Your task to perform on an android device: Add razer huntsman to the cart on bestbuy.com Image 0: 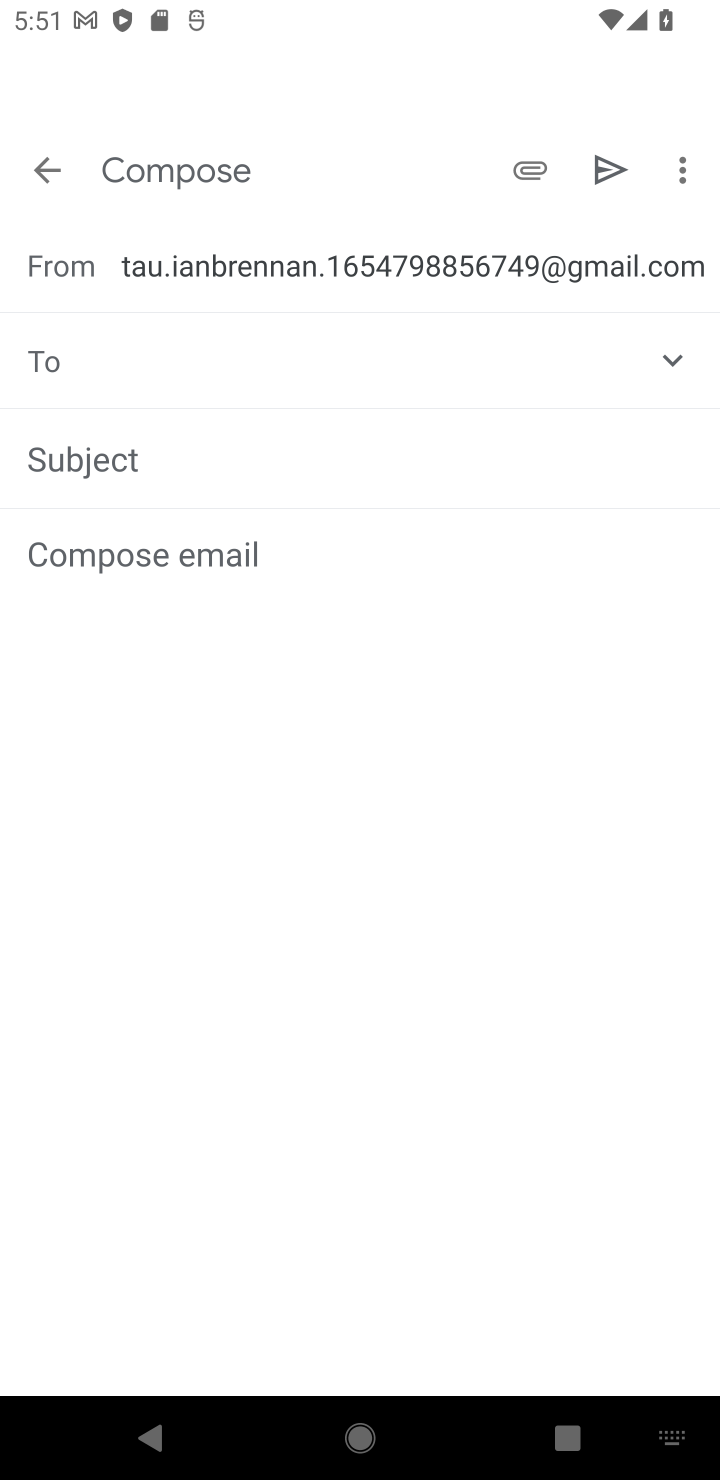
Step 0: press home button
Your task to perform on an android device: Add razer huntsman to the cart on bestbuy.com Image 1: 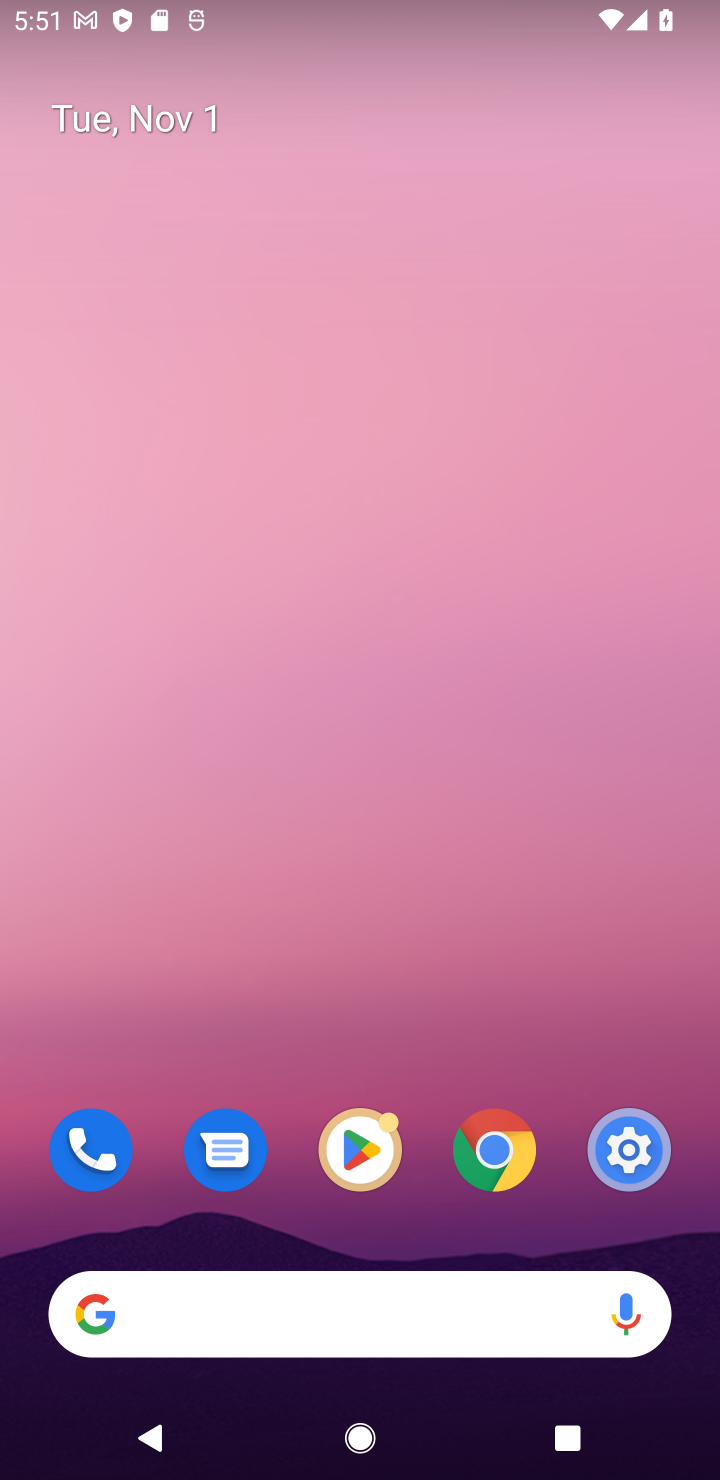
Step 1: click (497, 1156)
Your task to perform on an android device: Add razer huntsman to the cart on bestbuy.com Image 2: 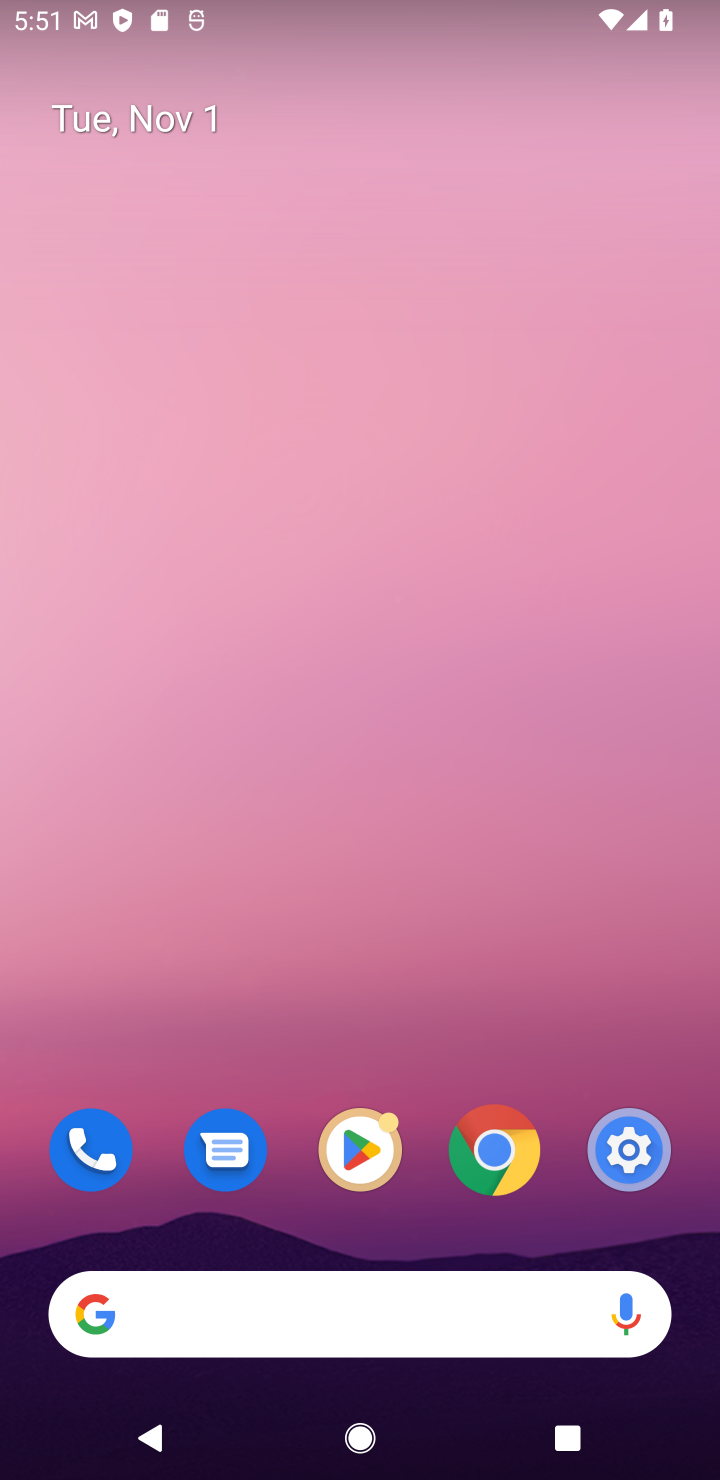
Step 2: click (506, 1140)
Your task to perform on an android device: Add razer huntsman to the cart on bestbuy.com Image 3: 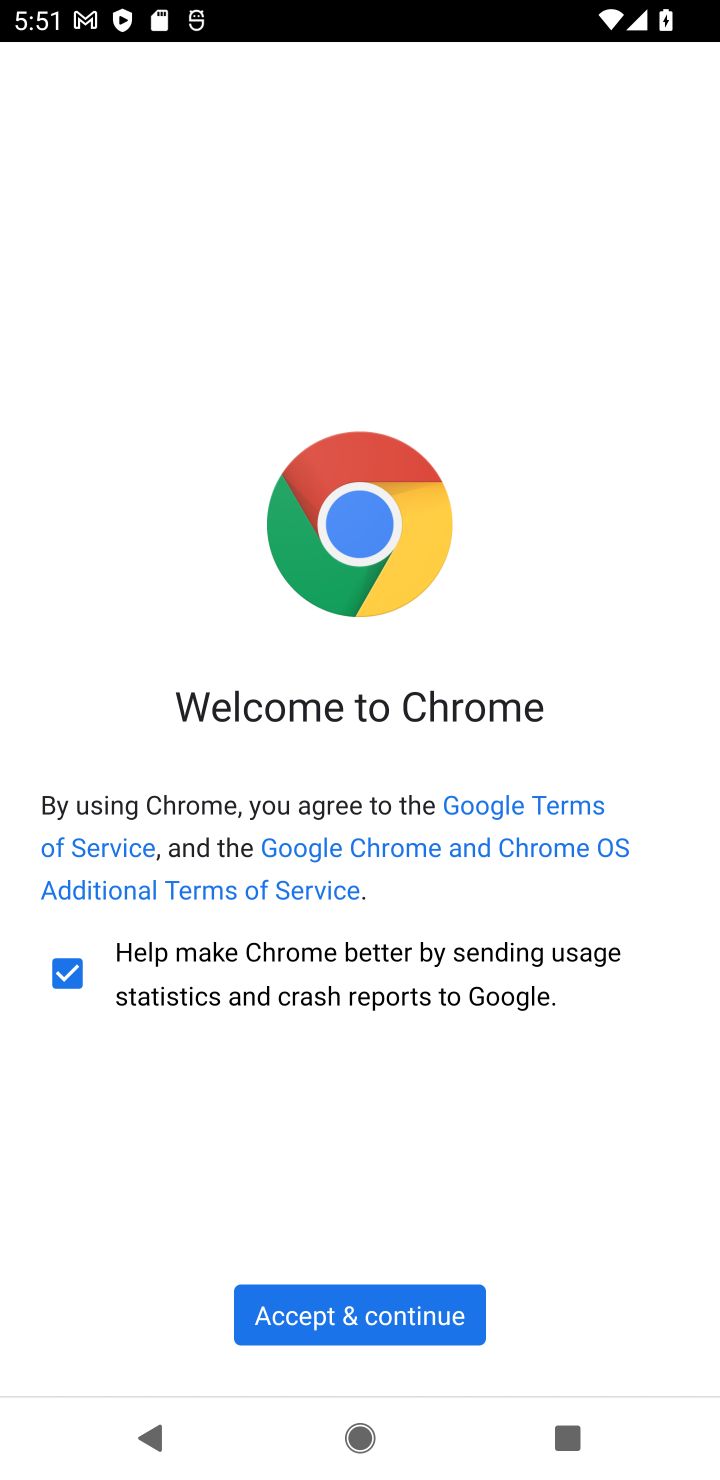
Step 3: click (369, 1332)
Your task to perform on an android device: Add razer huntsman to the cart on bestbuy.com Image 4: 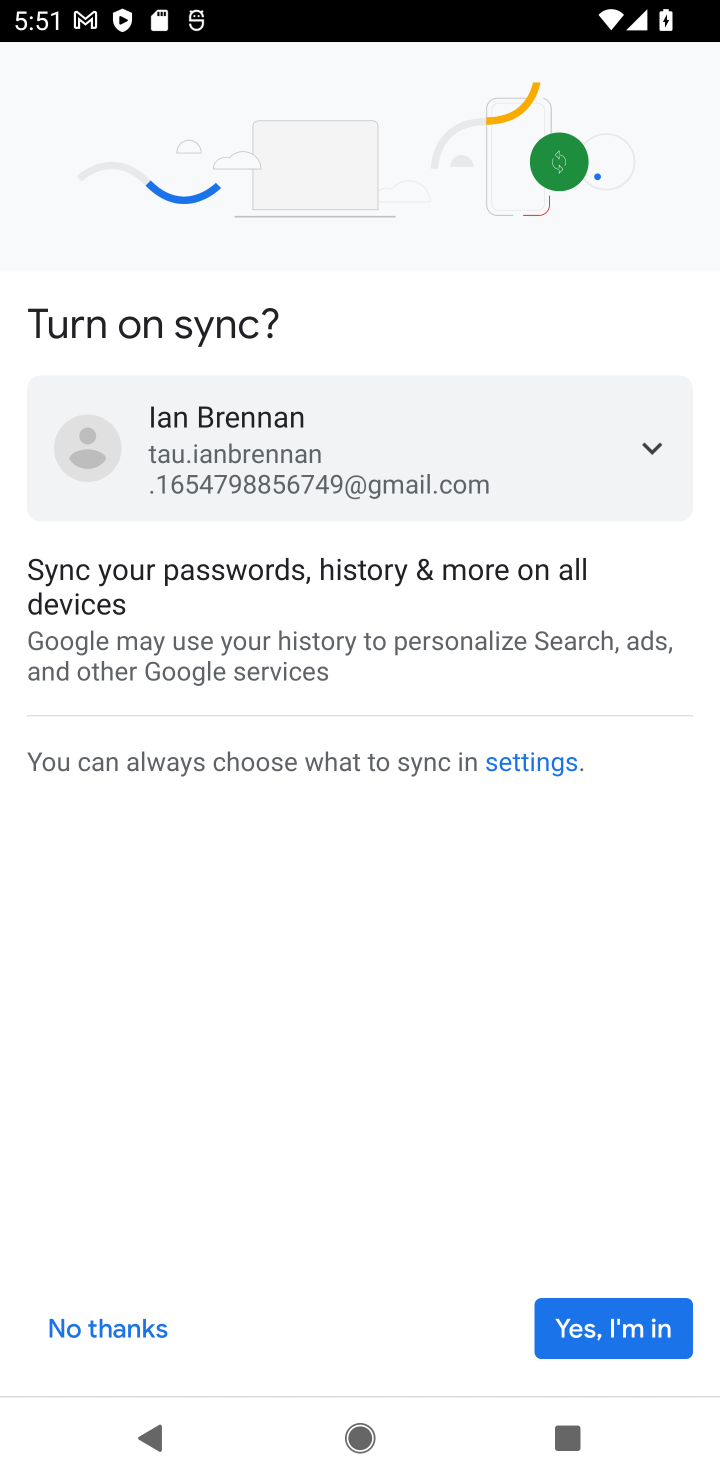
Step 4: click (393, 1326)
Your task to perform on an android device: Add razer huntsman to the cart on bestbuy.com Image 5: 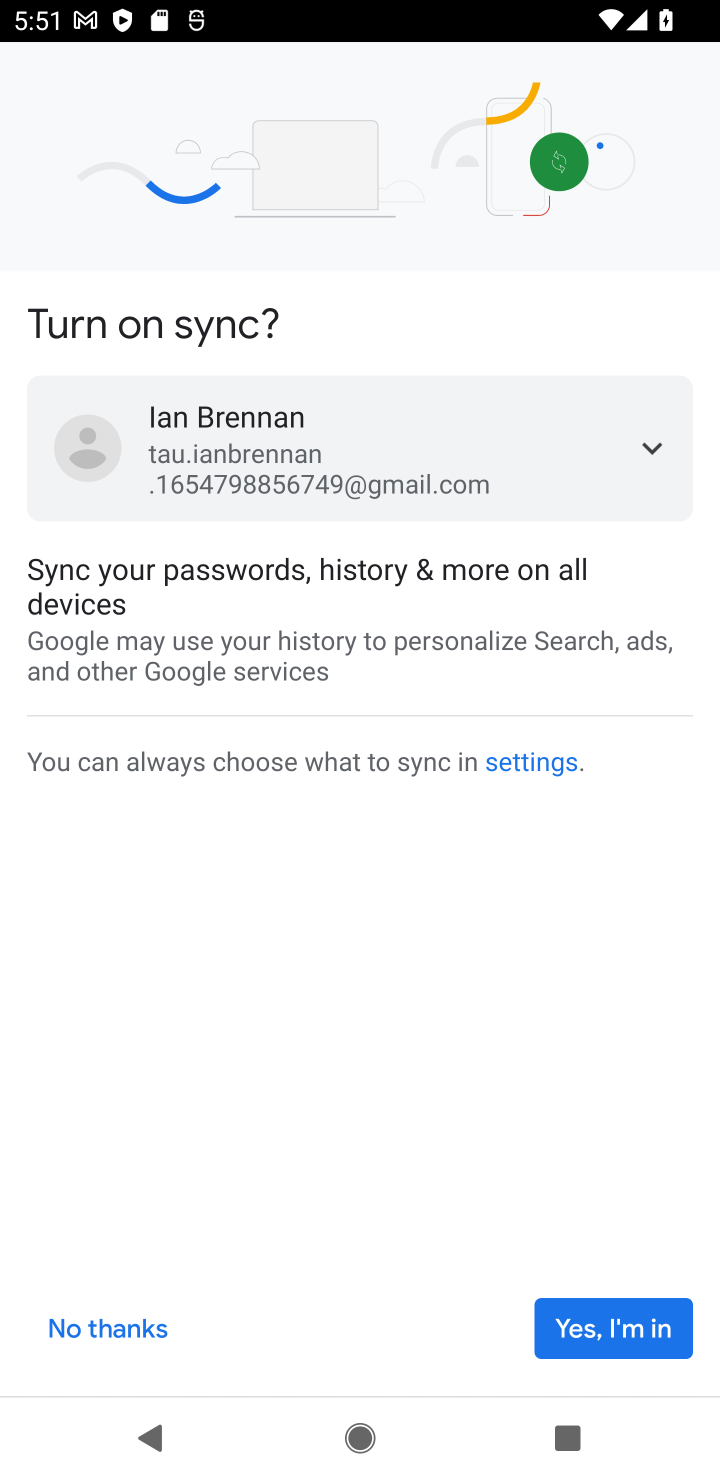
Step 5: click (585, 1317)
Your task to perform on an android device: Add razer huntsman to the cart on bestbuy.com Image 6: 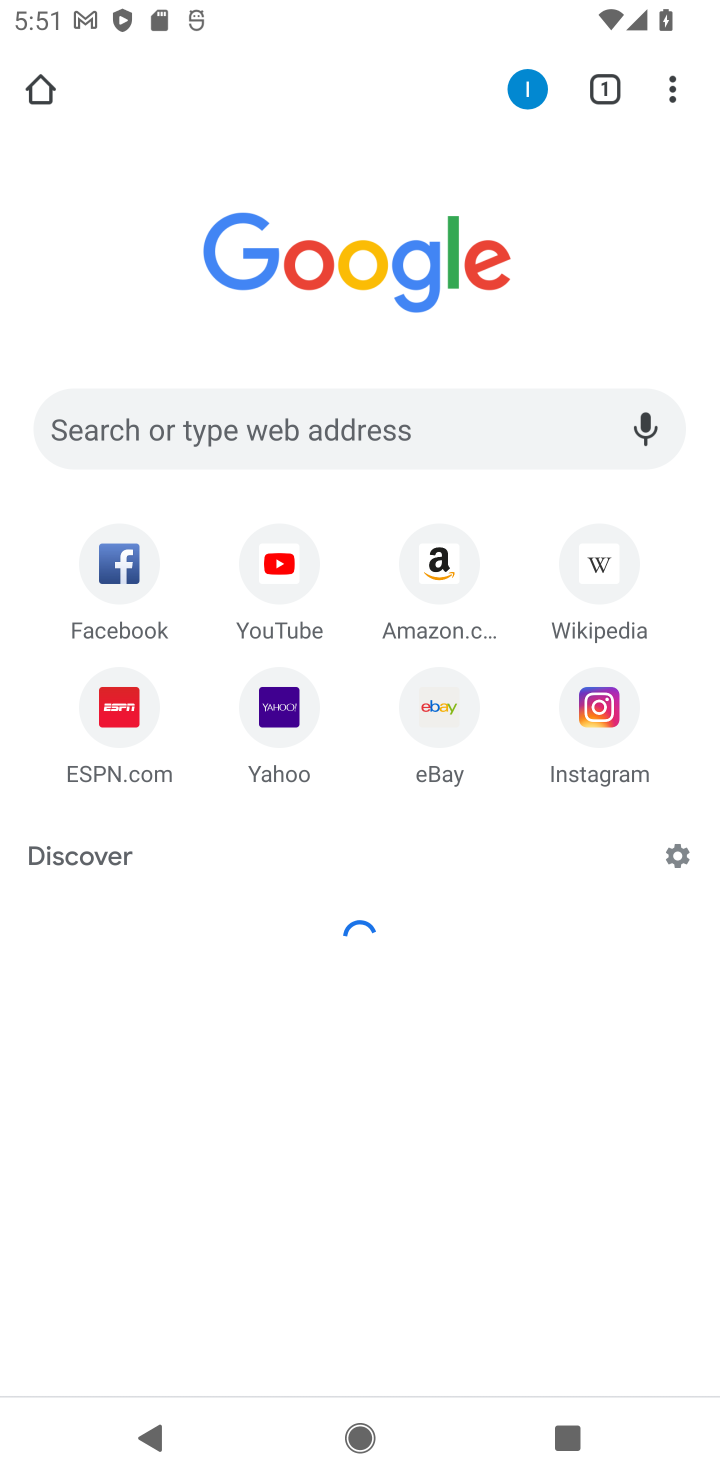
Step 6: click (591, 1326)
Your task to perform on an android device: Add razer huntsman to the cart on bestbuy.com Image 7: 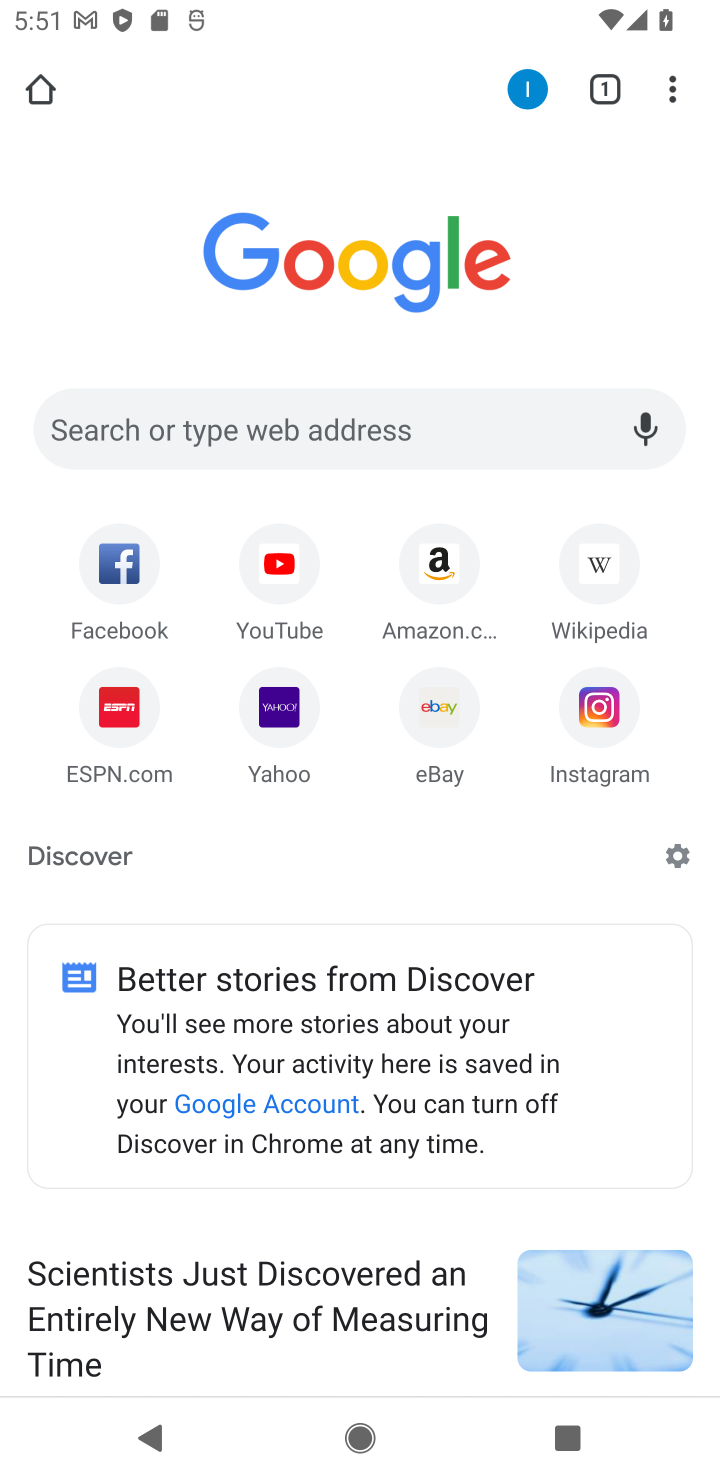
Step 7: click (416, 432)
Your task to perform on an android device: Add razer huntsman to the cart on bestbuy.com Image 8: 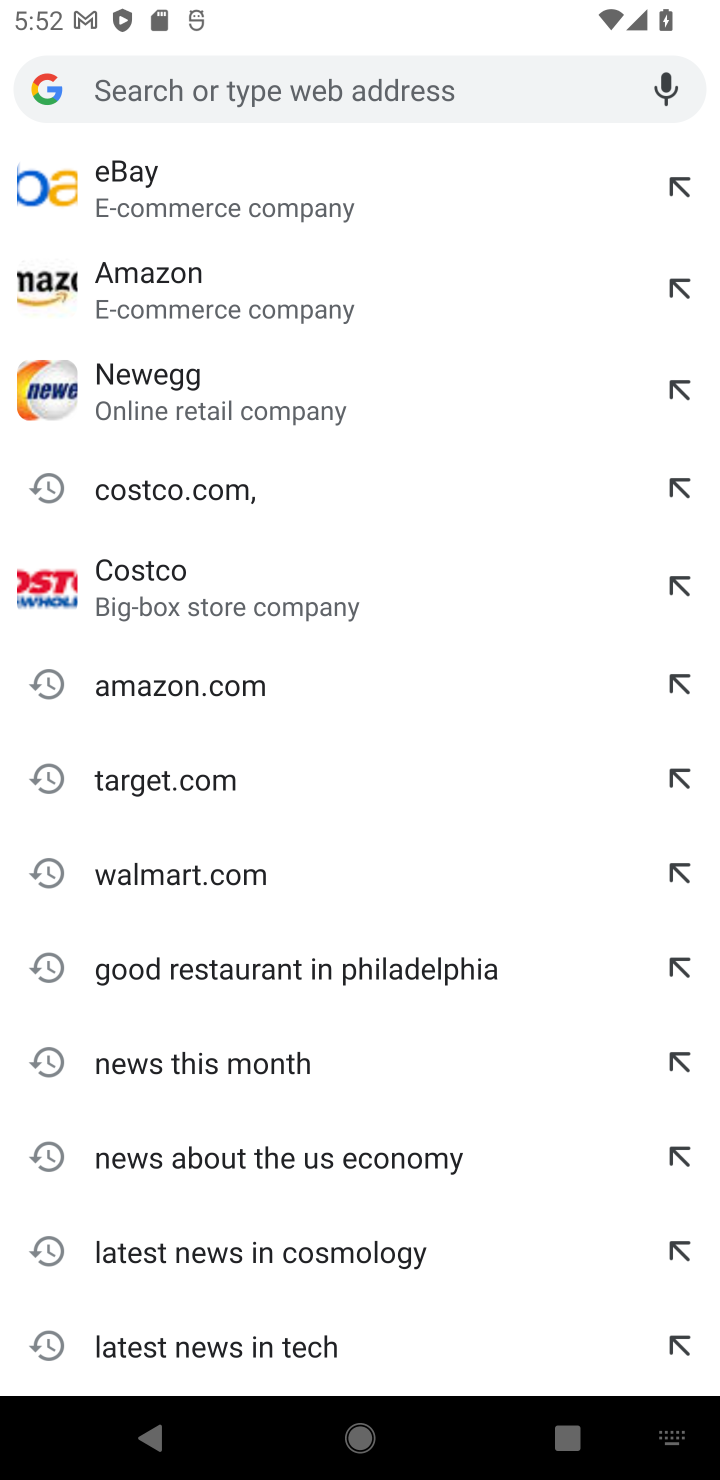
Step 8: type "bestbuy"
Your task to perform on an android device: Add razer huntsman to the cart on bestbuy.com Image 9: 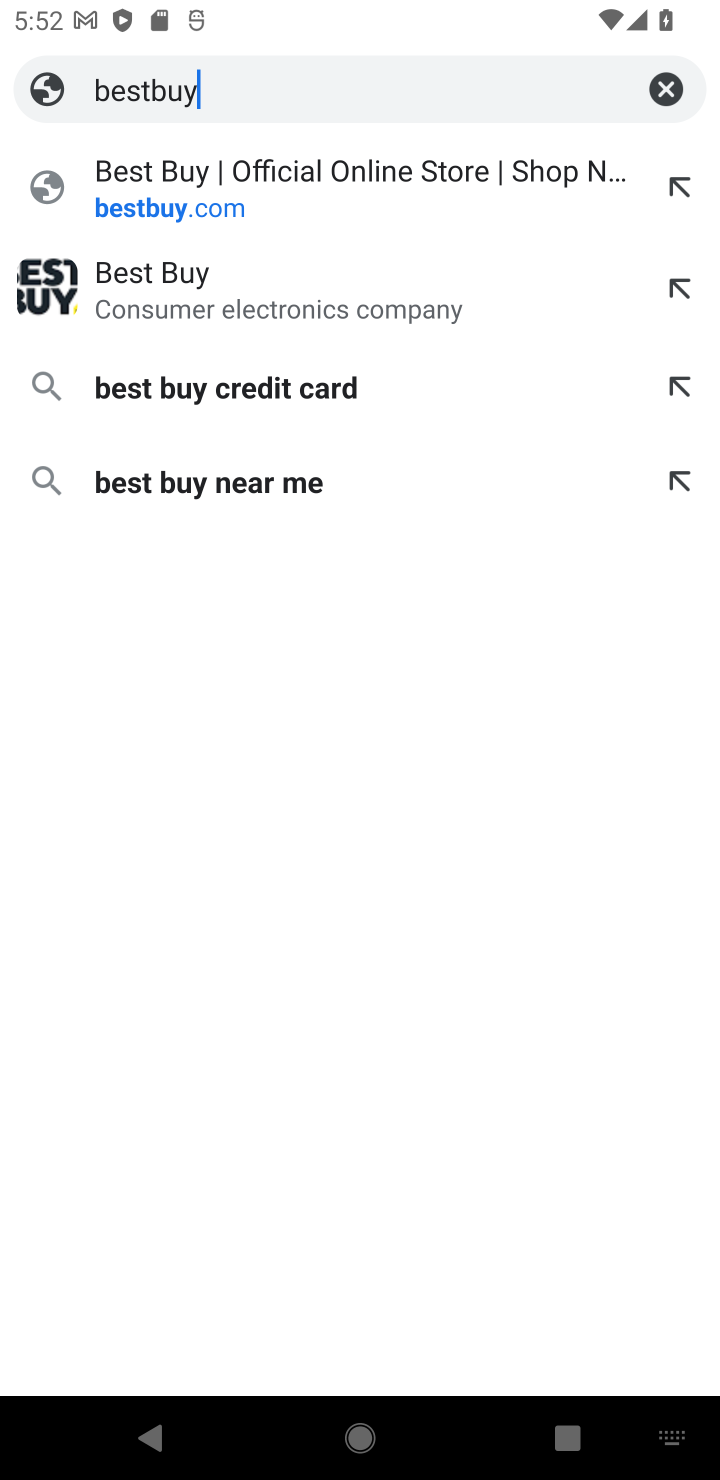
Step 9: click (290, 168)
Your task to perform on an android device: Add razer huntsman to the cart on bestbuy.com Image 10: 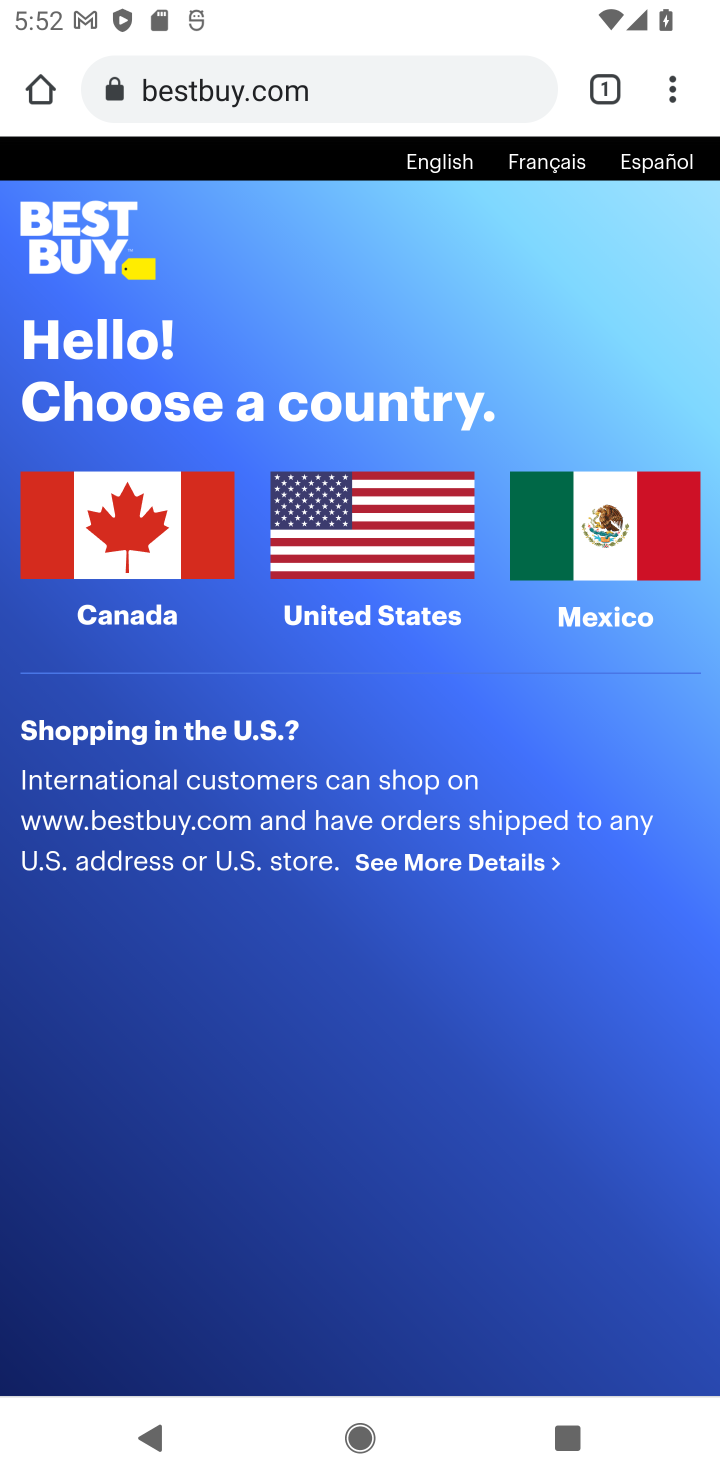
Step 10: click (307, 462)
Your task to perform on an android device: Add razer huntsman to the cart on bestbuy.com Image 11: 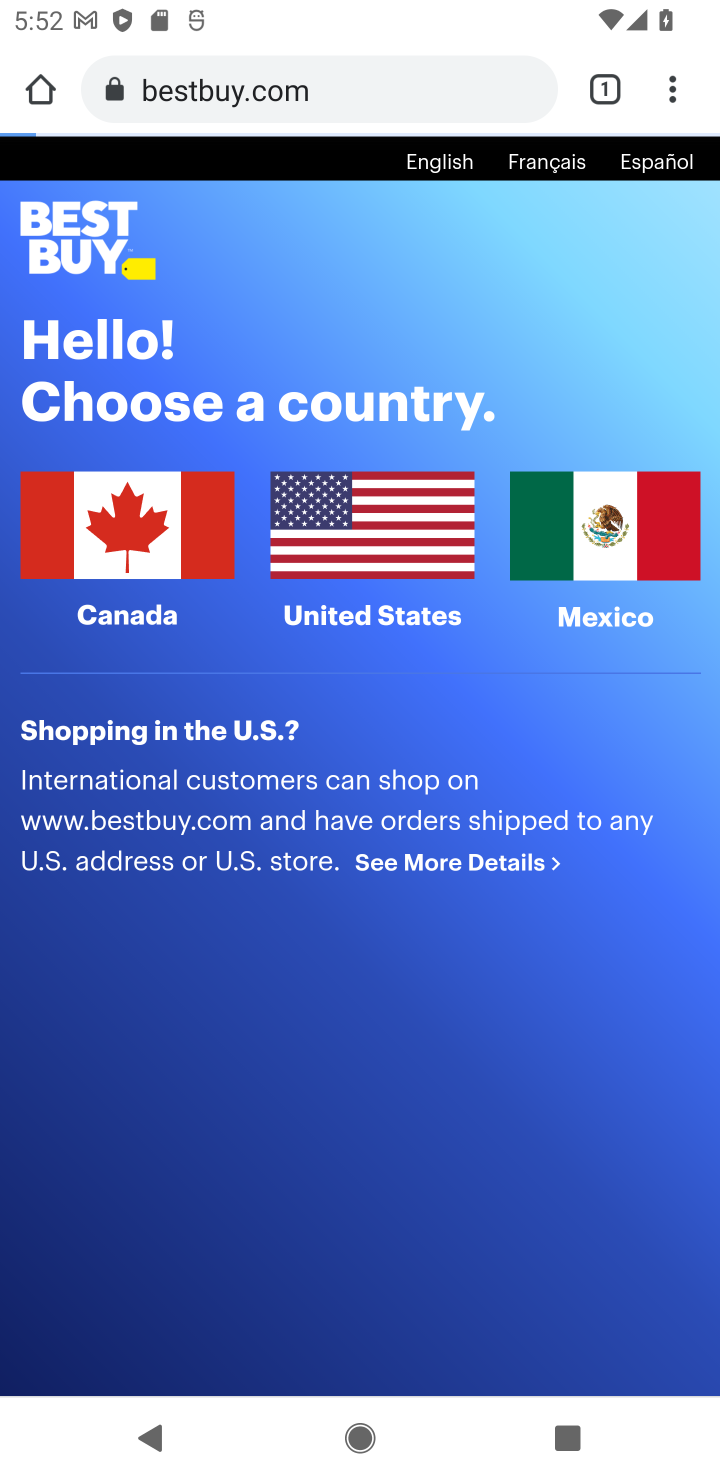
Step 11: click (336, 525)
Your task to perform on an android device: Add razer huntsman to the cart on bestbuy.com Image 12: 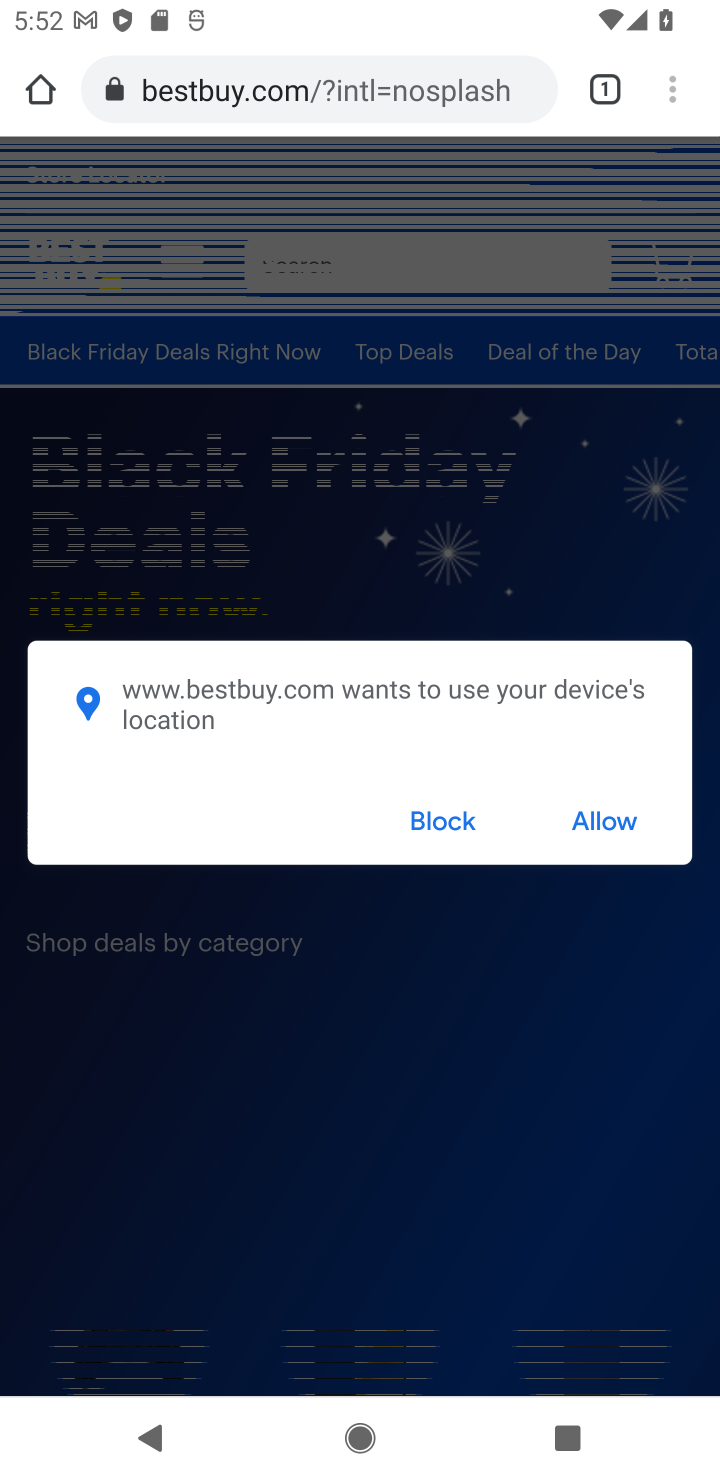
Step 12: click (611, 819)
Your task to perform on an android device: Add razer huntsman to the cart on bestbuy.com Image 13: 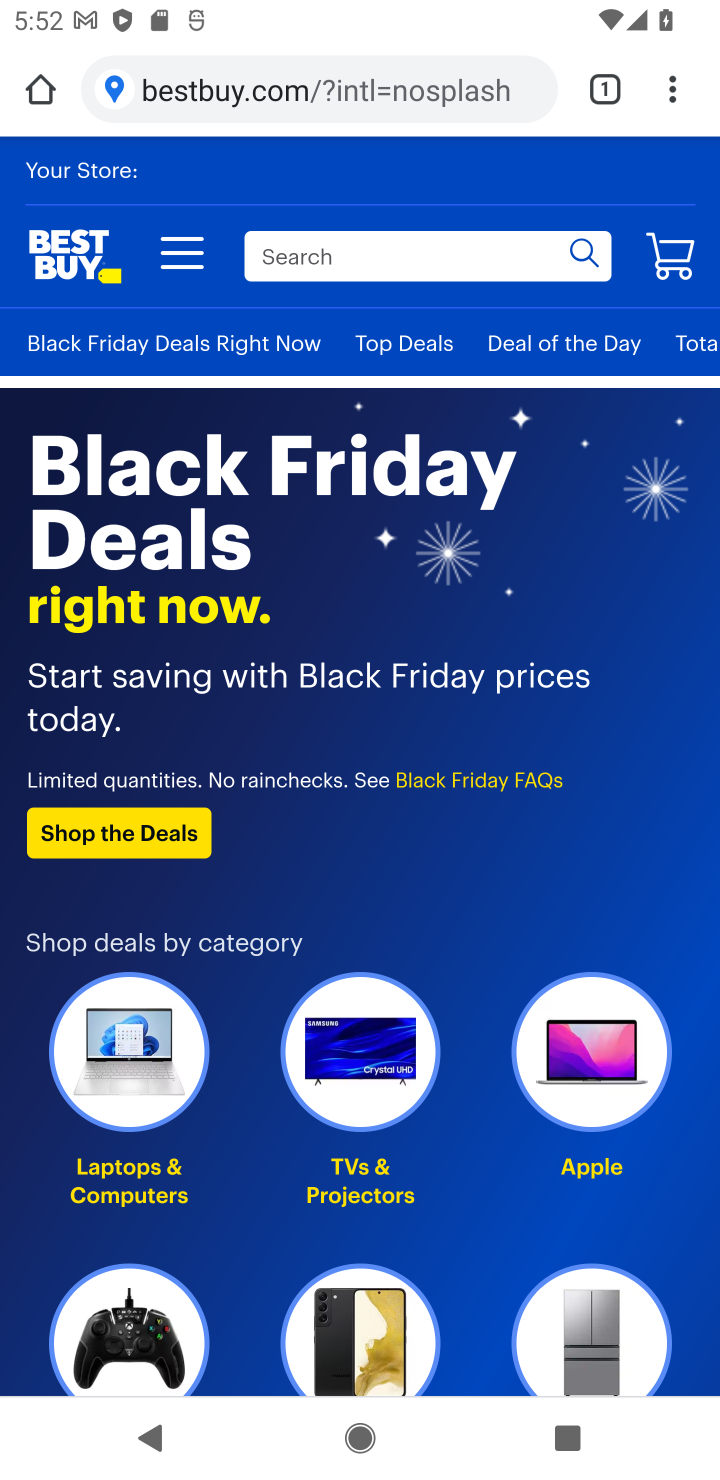
Step 13: click (439, 255)
Your task to perform on an android device: Add razer huntsman to the cart on bestbuy.com Image 14: 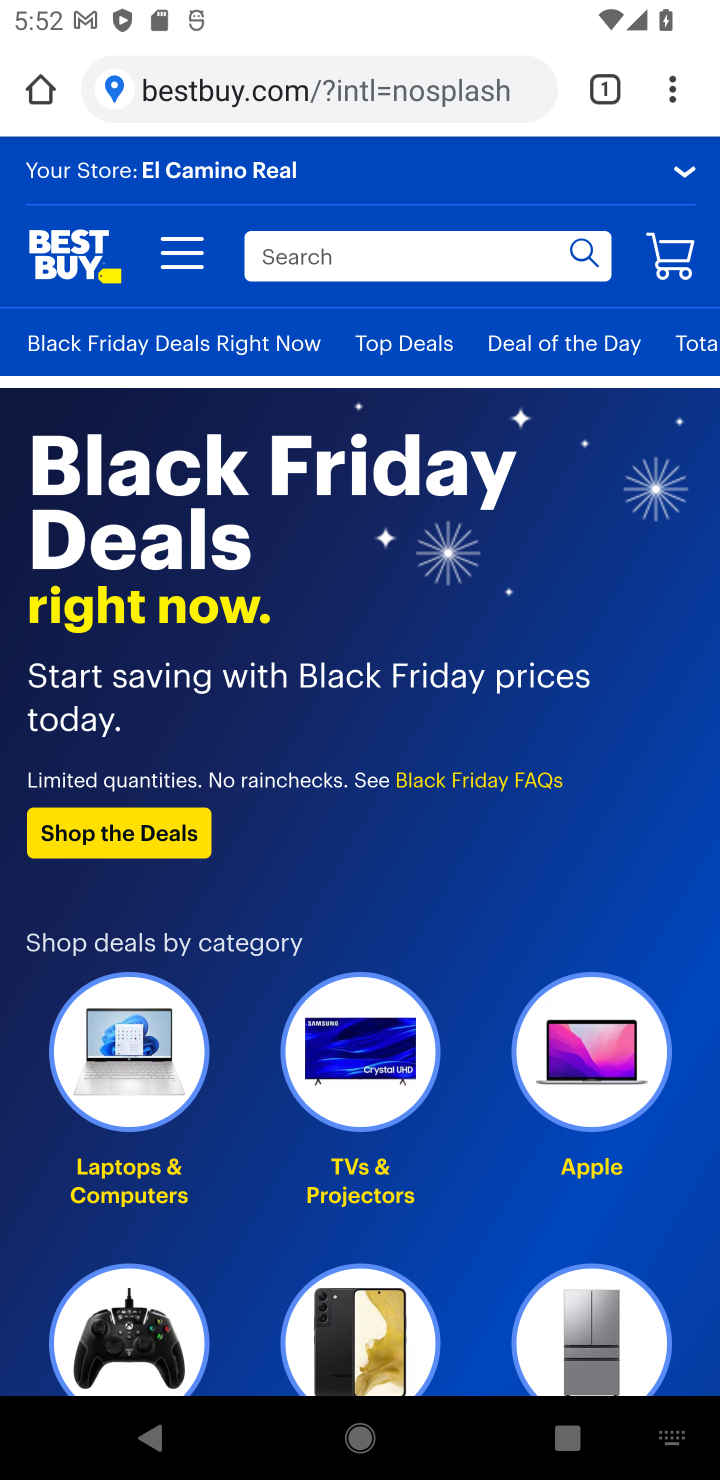
Step 14: type "razer huntsman"
Your task to perform on an android device: Add razer huntsman to the cart on bestbuy.com Image 15: 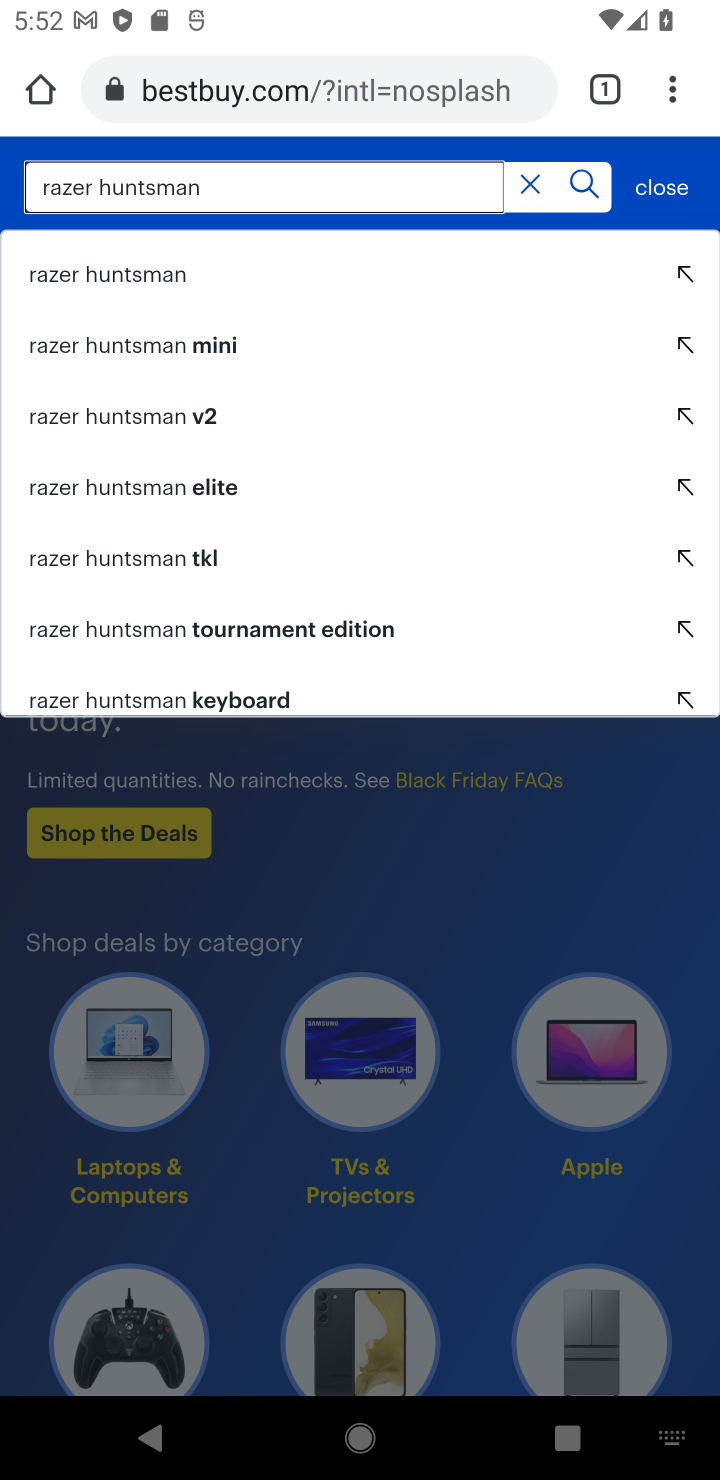
Step 15: click (118, 272)
Your task to perform on an android device: Add razer huntsman to the cart on bestbuy.com Image 16: 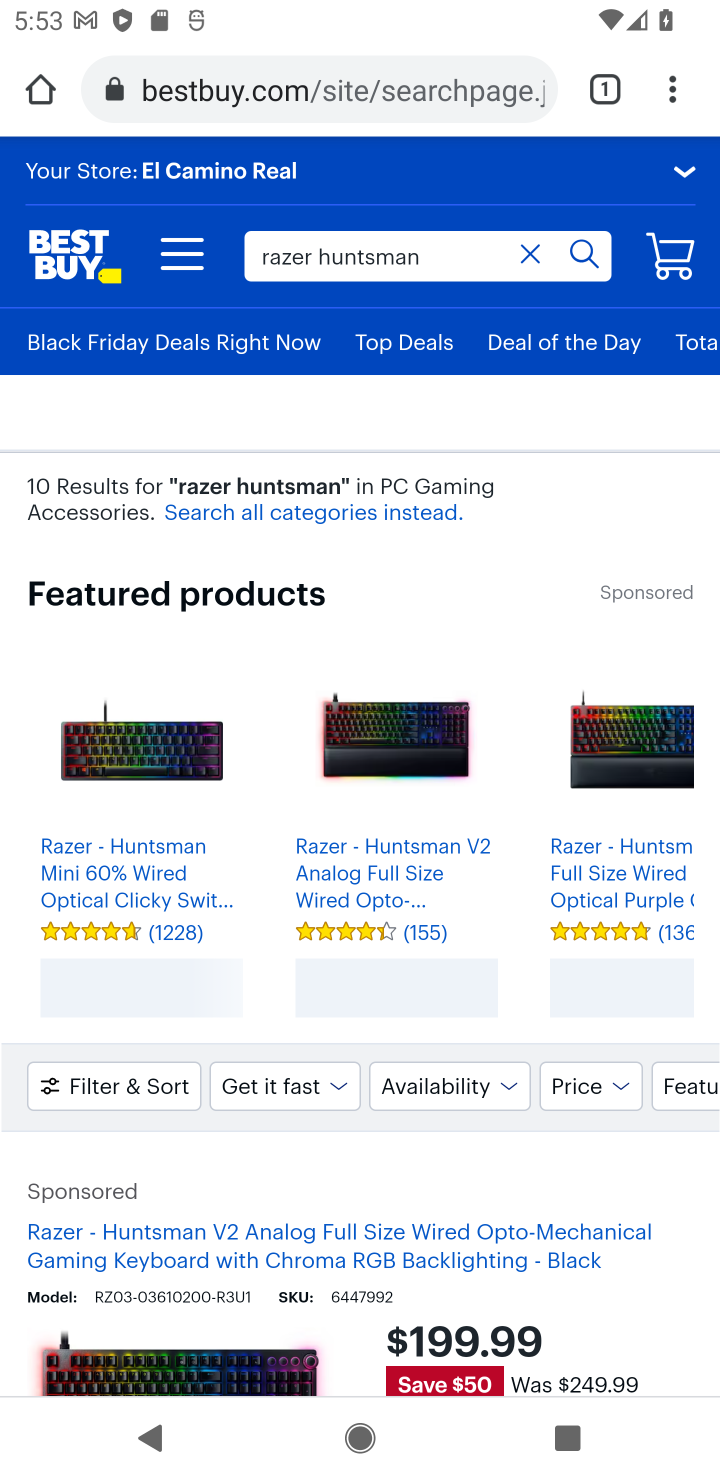
Step 16: click (261, 1268)
Your task to perform on an android device: Add razer huntsman to the cart on bestbuy.com Image 17: 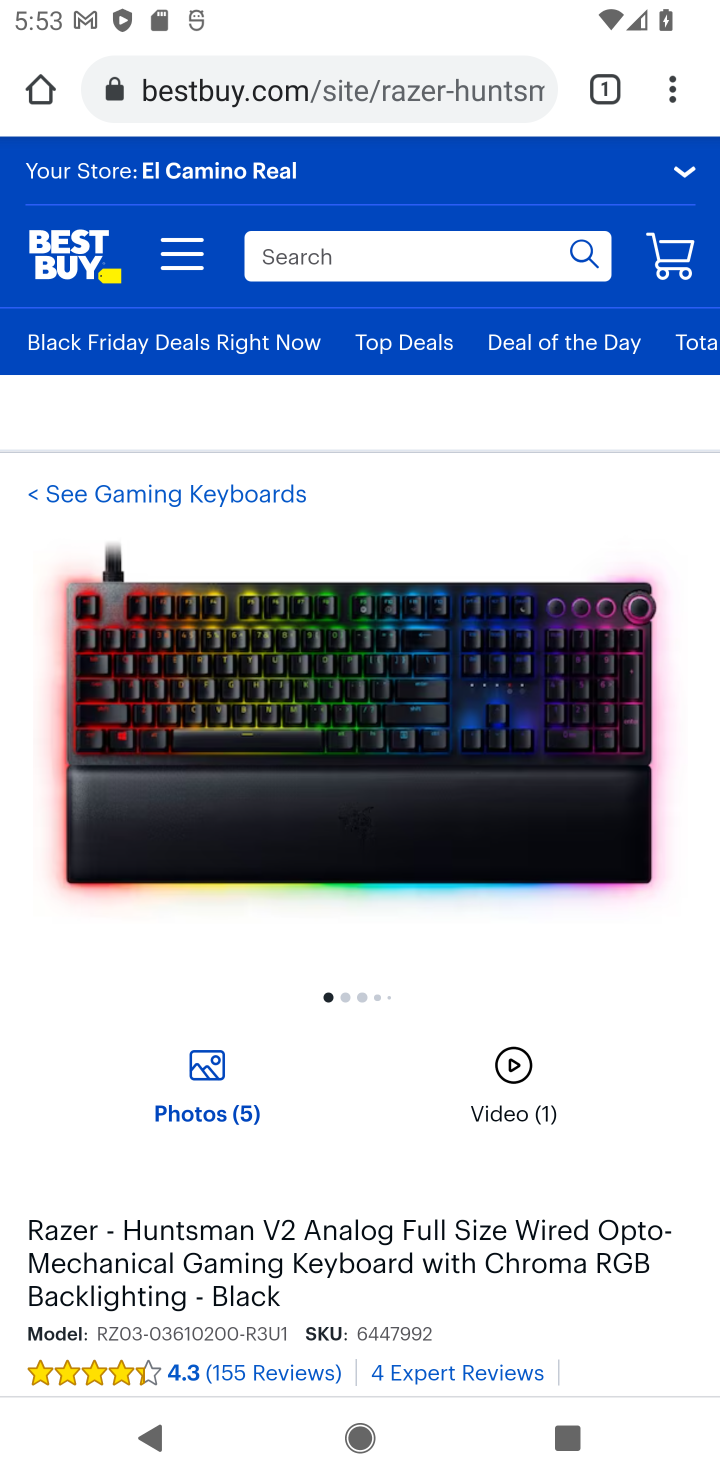
Step 17: drag from (277, 1338) to (717, 115)
Your task to perform on an android device: Add razer huntsman to the cart on bestbuy.com Image 18: 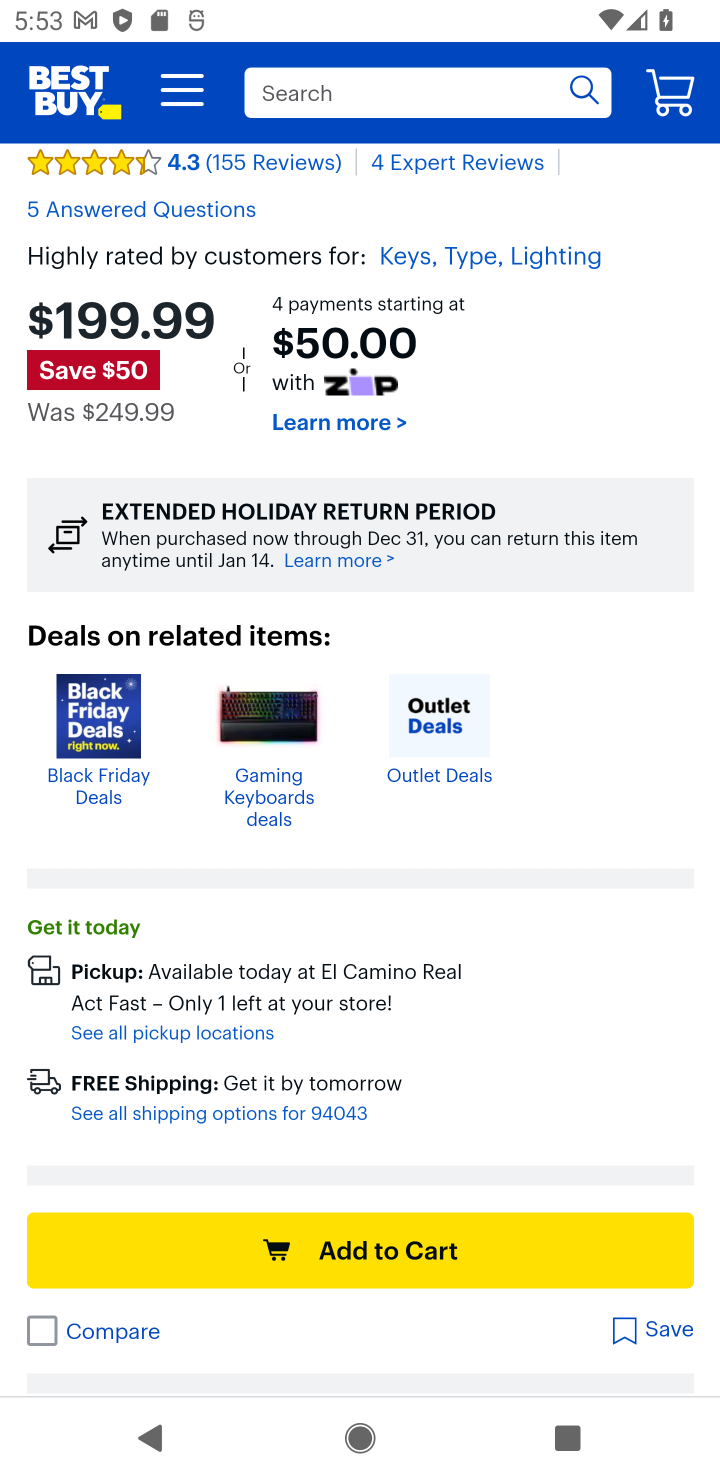
Step 18: click (391, 1118)
Your task to perform on an android device: Add razer huntsman to the cart on bestbuy.com Image 19: 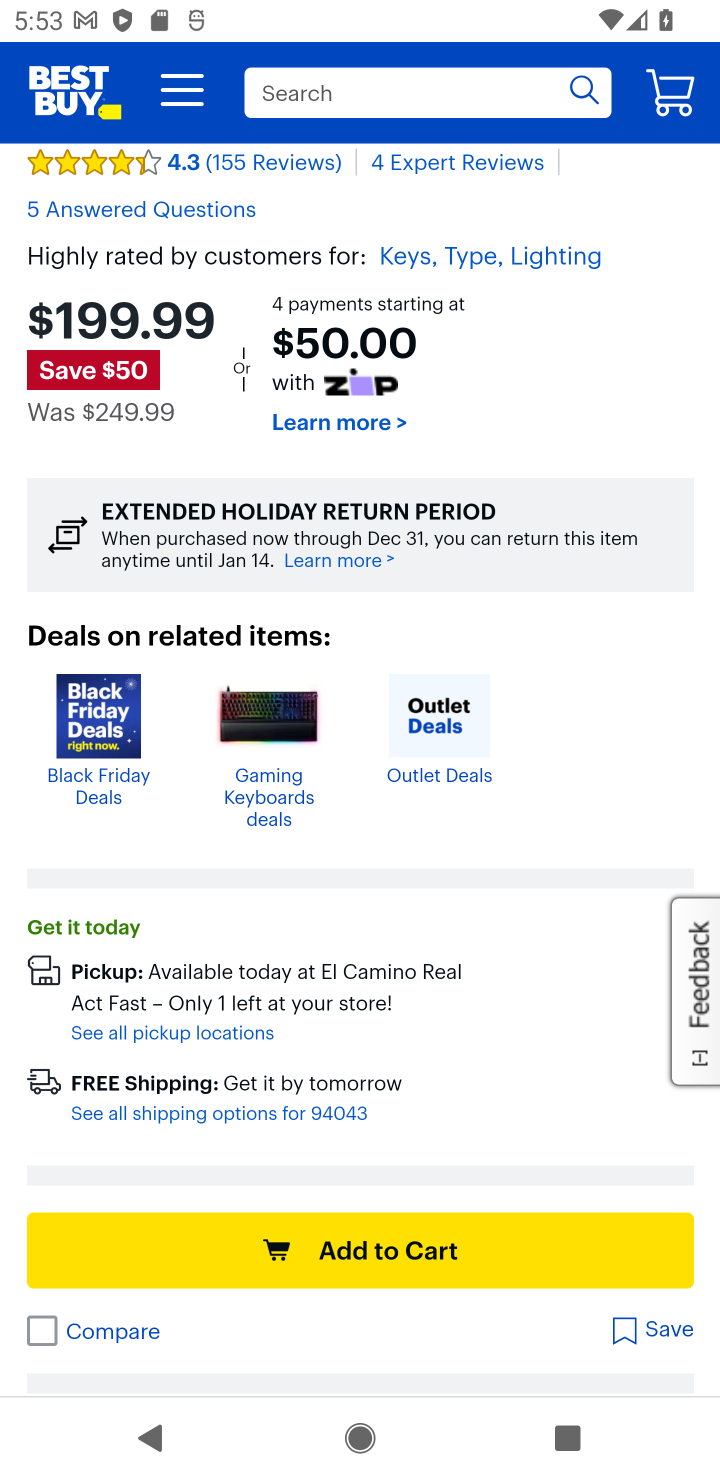
Step 19: click (380, 1252)
Your task to perform on an android device: Add razer huntsman to the cart on bestbuy.com Image 20: 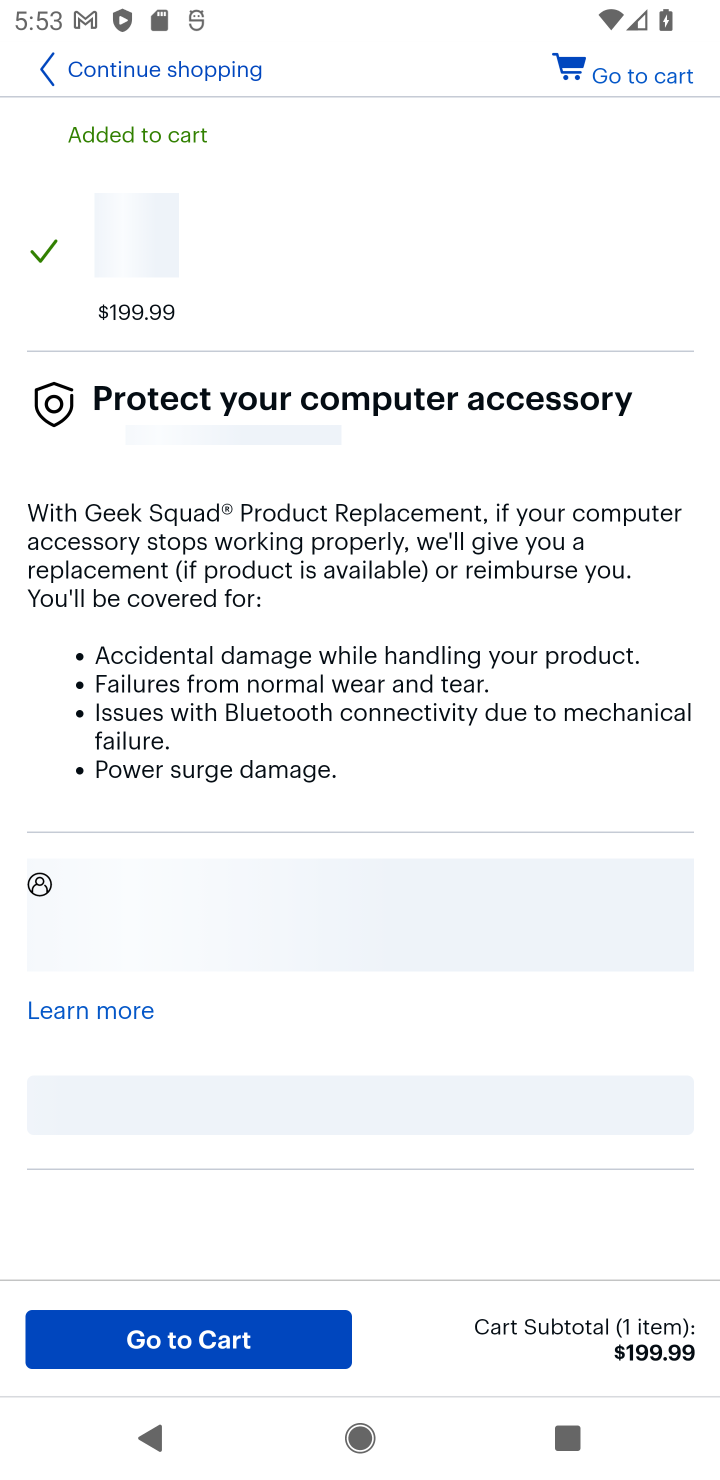
Step 20: task complete